Your task to perform on an android device: Open Google Chrome and open the bookmarks view Image 0: 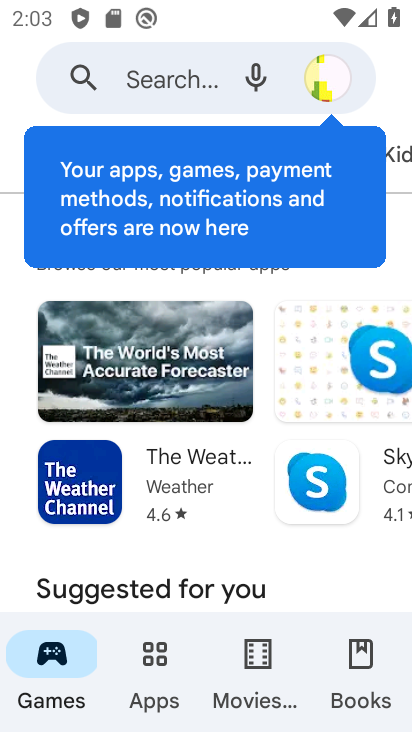
Step 0: press back button
Your task to perform on an android device: Open Google Chrome and open the bookmarks view Image 1: 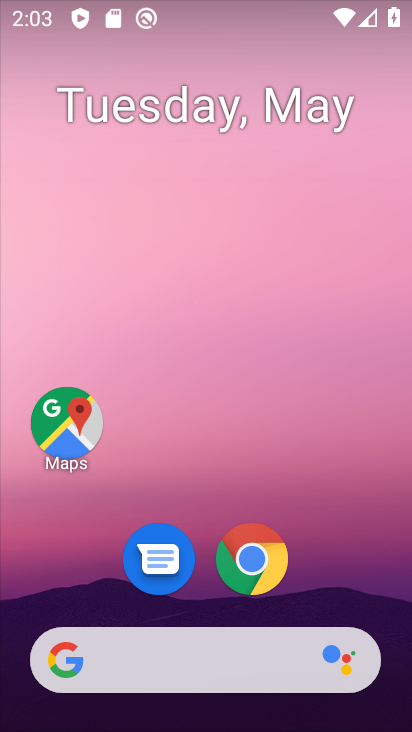
Step 1: click (252, 561)
Your task to perform on an android device: Open Google Chrome and open the bookmarks view Image 2: 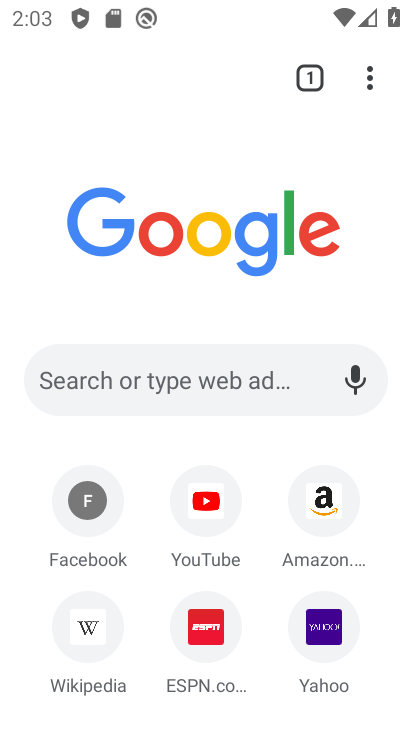
Step 2: click (372, 81)
Your task to perform on an android device: Open Google Chrome and open the bookmarks view Image 3: 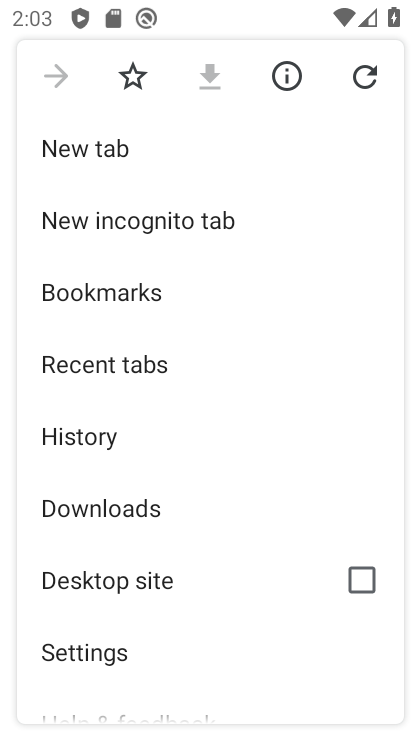
Step 3: click (129, 298)
Your task to perform on an android device: Open Google Chrome and open the bookmarks view Image 4: 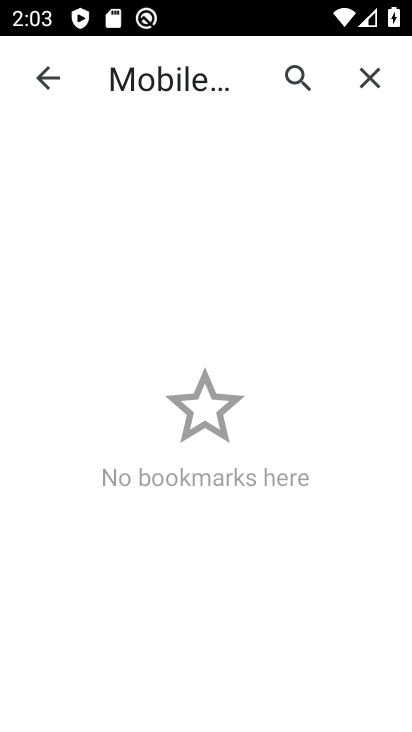
Step 4: task complete